Your task to perform on an android device: Open Chrome and go to settings Image 0: 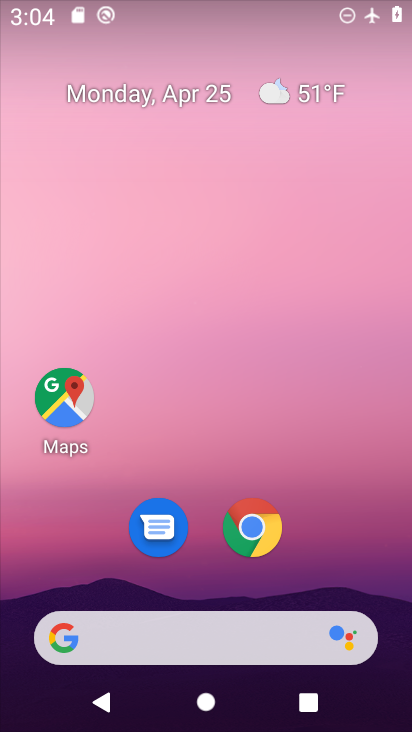
Step 0: drag from (383, 483) to (341, 13)
Your task to perform on an android device: Open Chrome and go to settings Image 1: 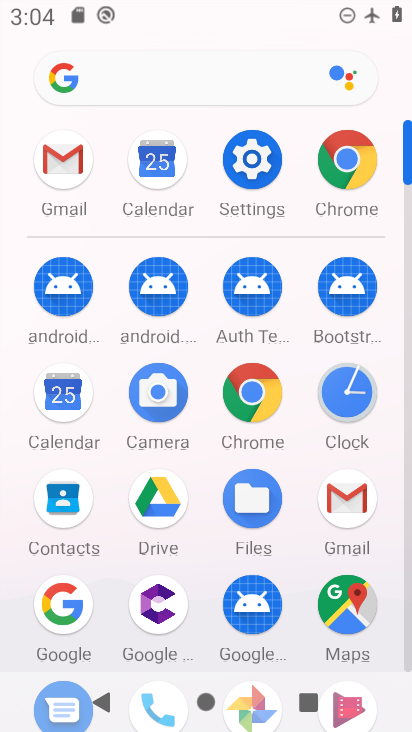
Step 1: drag from (0, 626) to (25, 327)
Your task to perform on an android device: Open Chrome and go to settings Image 2: 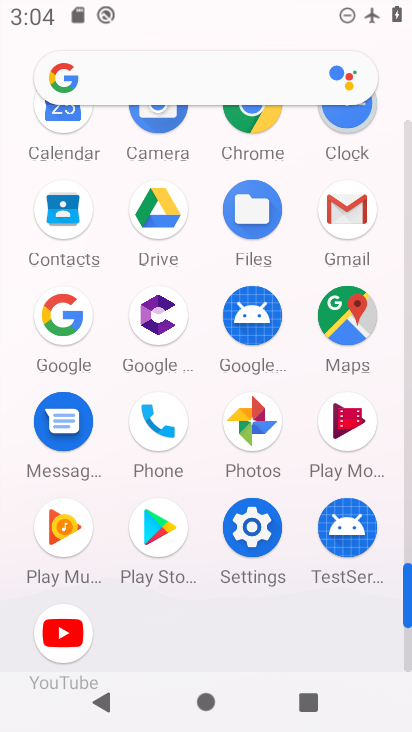
Step 2: drag from (19, 477) to (20, 237)
Your task to perform on an android device: Open Chrome and go to settings Image 3: 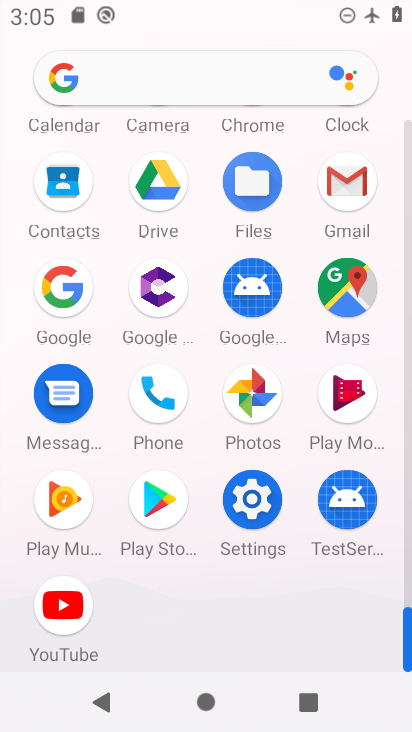
Step 3: drag from (18, 247) to (13, 504)
Your task to perform on an android device: Open Chrome and go to settings Image 4: 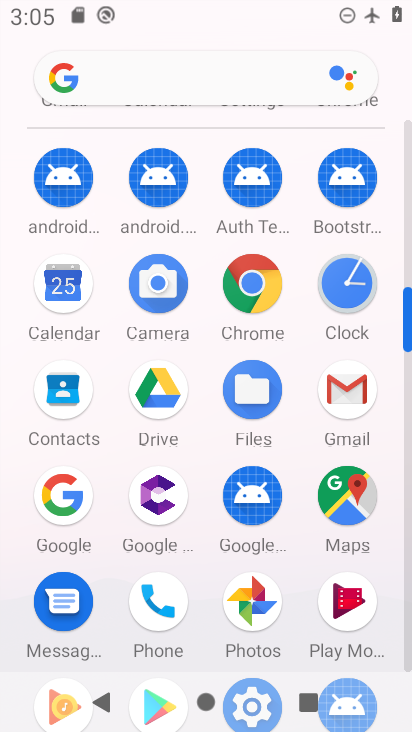
Step 4: click (249, 283)
Your task to perform on an android device: Open Chrome and go to settings Image 5: 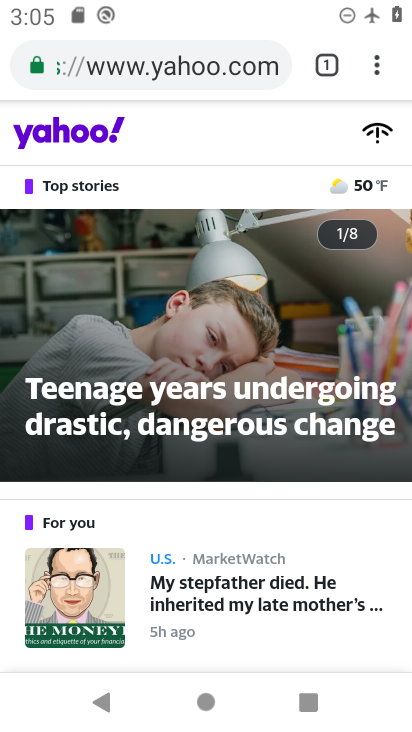
Step 5: task complete